Your task to perform on an android device: open sync settings in chrome Image 0: 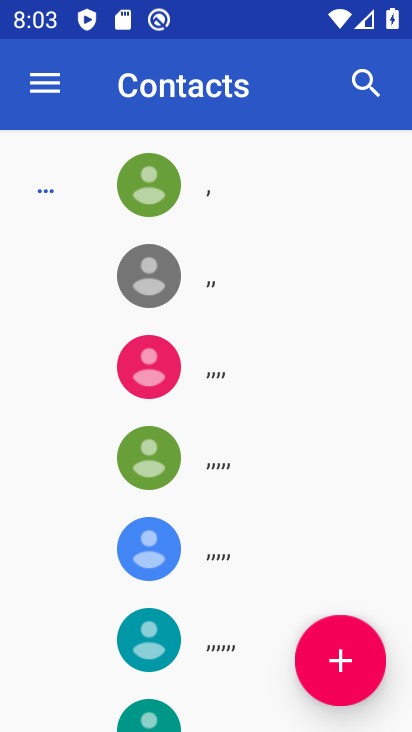
Step 0: press home button
Your task to perform on an android device: open sync settings in chrome Image 1: 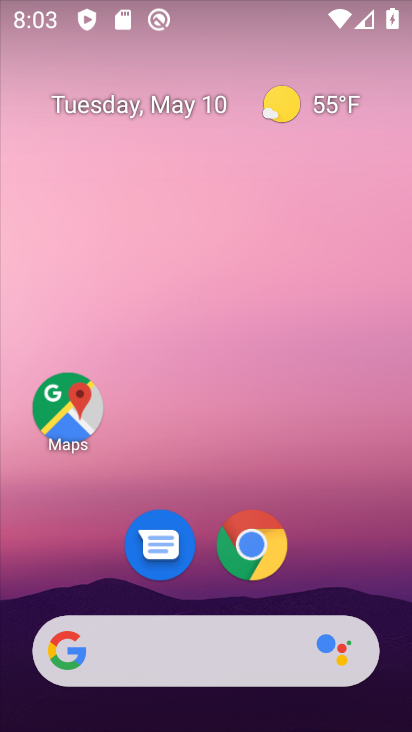
Step 1: click (281, 544)
Your task to perform on an android device: open sync settings in chrome Image 2: 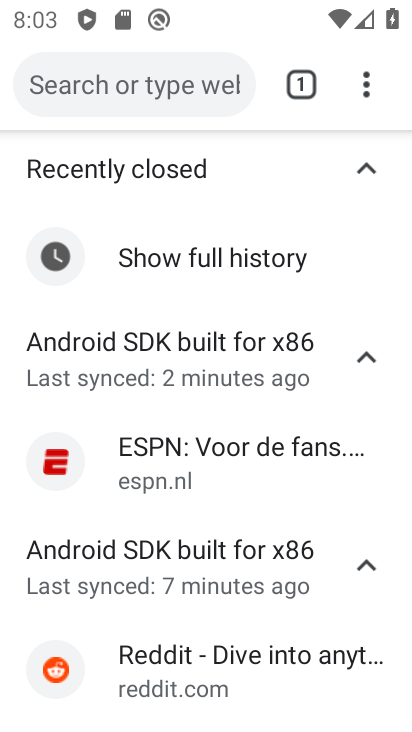
Step 2: drag from (362, 78) to (111, 589)
Your task to perform on an android device: open sync settings in chrome Image 3: 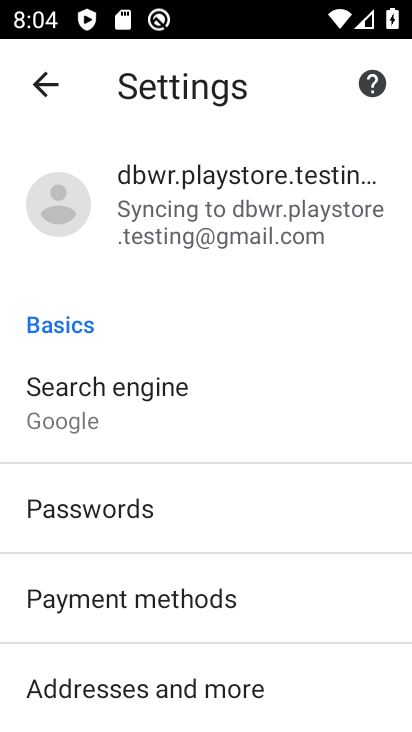
Step 3: click (152, 208)
Your task to perform on an android device: open sync settings in chrome Image 4: 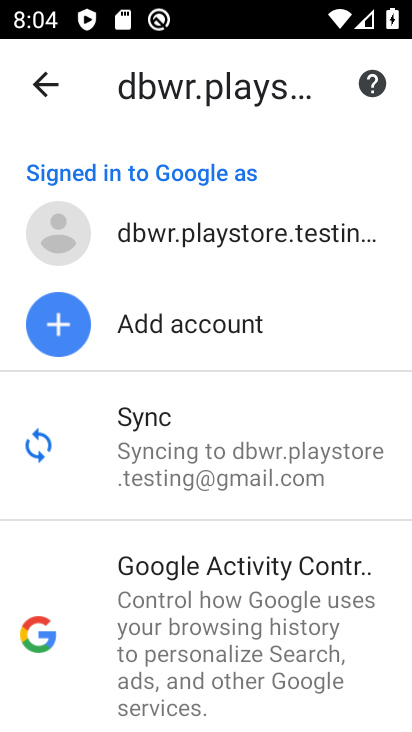
Step 4: click (163, 411)
Your task to perform on an android device: open sync settings in chrome Image 5: 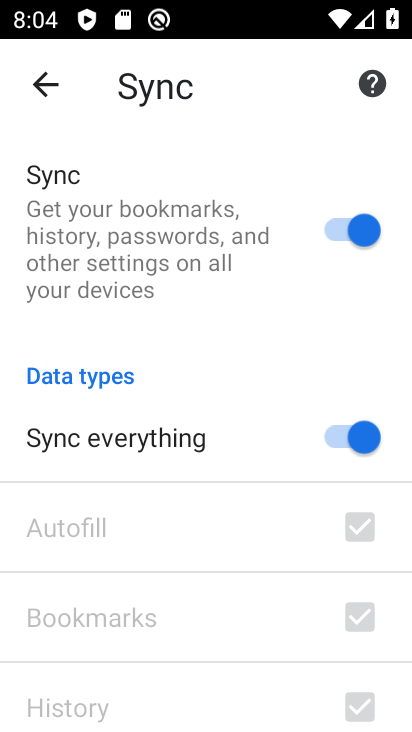
Step 5: task complete